Your task to perform on an android device: find which apps use the phone's location Image 0: 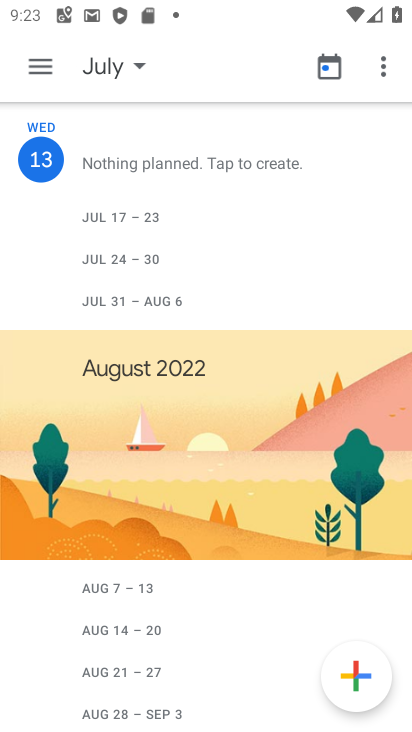
Step 0: press home button
Your task to perform on an android device: find which apps use the phone's location Image 1: 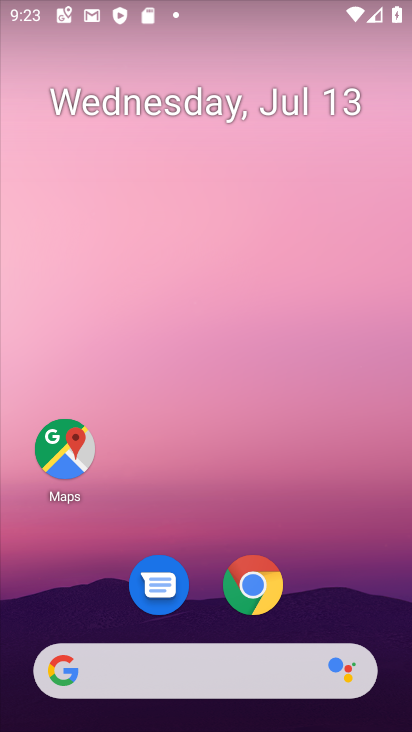
Step 1: drag from (315, 588) to (297, 5)
Your task to perform on an android device: find which apps use the phone's location Image 2: 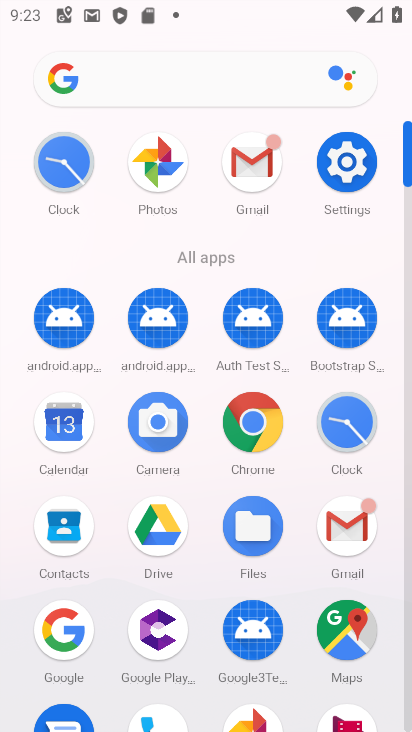
Step 2: click (360, 173)
Your task to perform on an android device: find which apps use the phone's location Image 3: 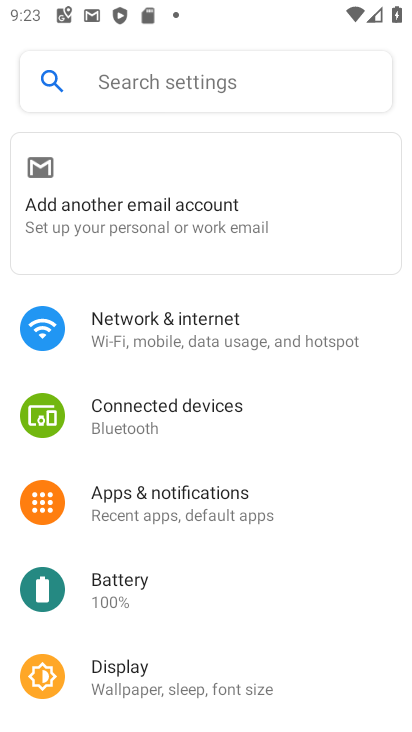
Step 3: drag from (161, 649) to (198, 113)
Your task to perform on an android device: find which apps use the phone's location Image 4: 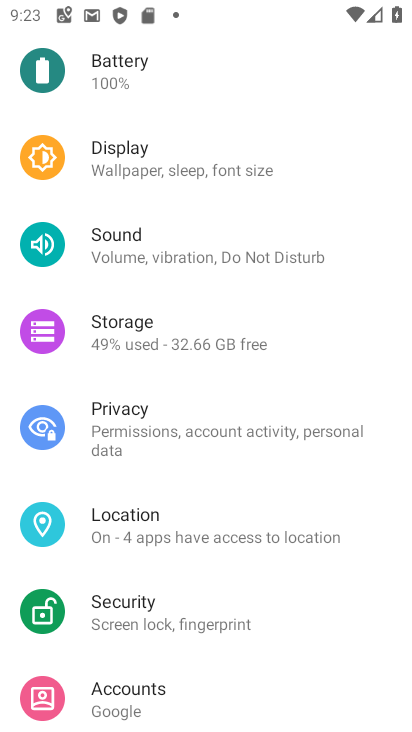
Step 4: click (210, 523)
Your task to perform on an android device: find which apps use the phone's location Image 5: 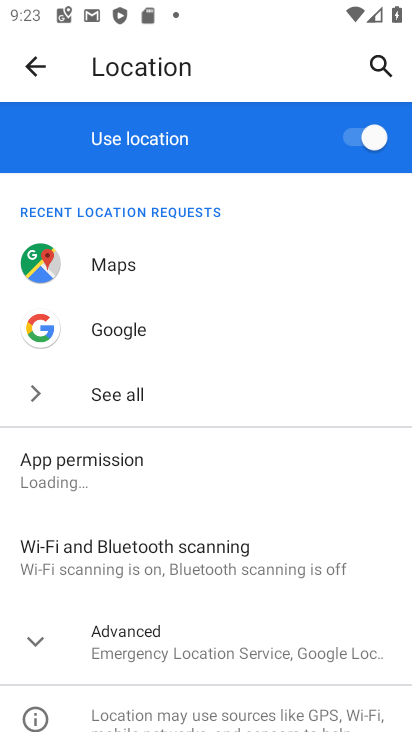
Step 5: click (115, 463)
Your task to perform on an android device: find which apps use the phone's location Image 6: 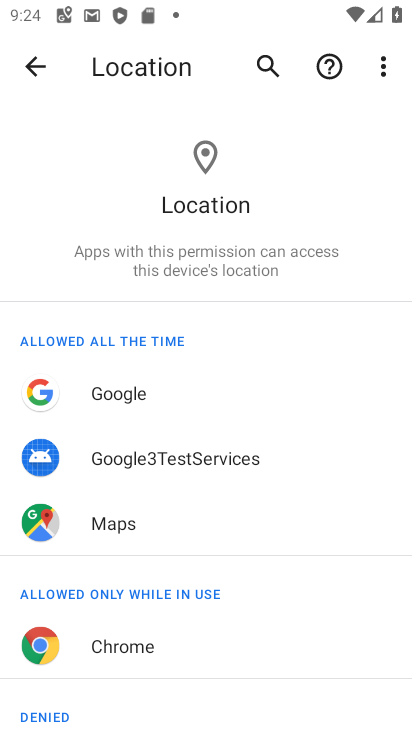
Step 6: task complete